Your task to perform on an android device: Open ESPN.com Image 0: 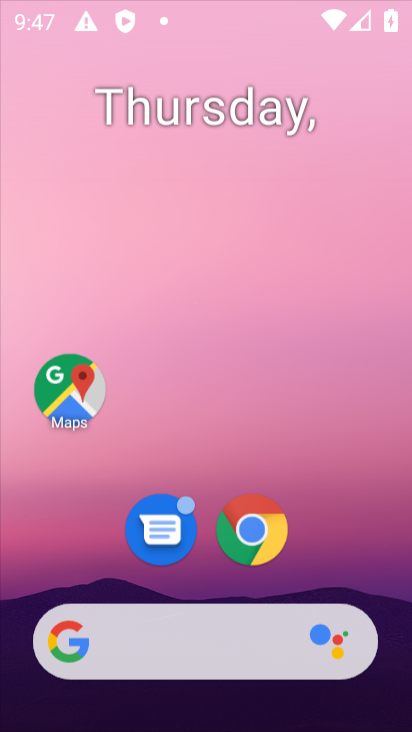
Step 0: press home button
Your task to perform on an android device: Open ESPN.com Image 1: 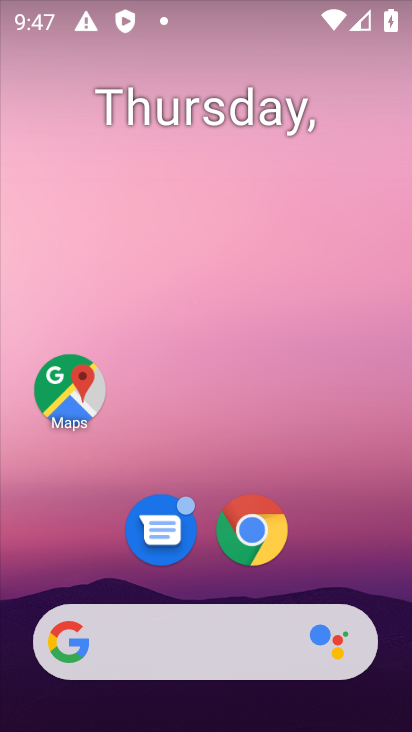
Step 1: click (69, 637)
Your task to perform on an android device: Open ESPN.com Image 2: 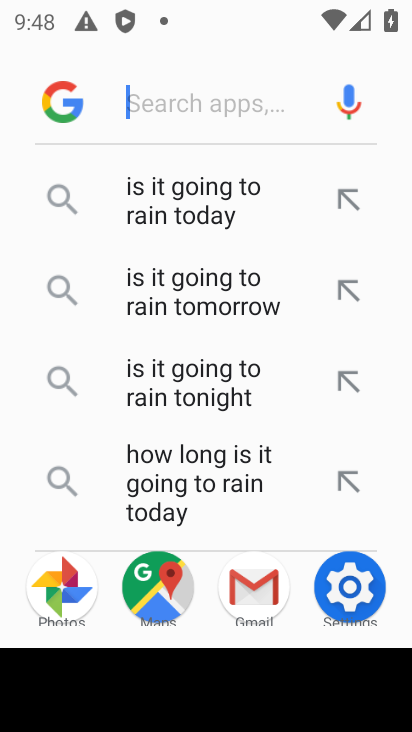
Step 2: type " ESPN.com"
Your task to perform on an android device: Open ESPN.com Image 3: 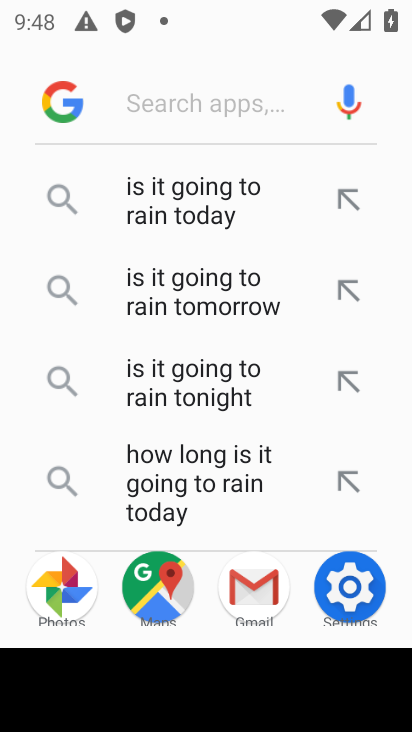
Step 3: click (169, 96)
Your task to perform on an android device: Open ESPN.com Image 4: 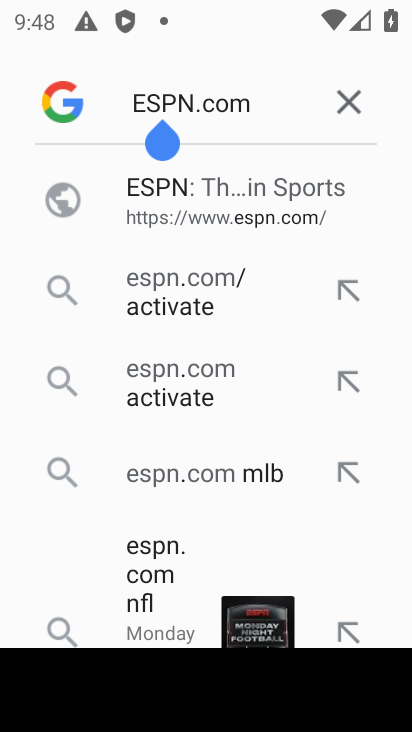
Step 4: press enter
Your task to perform on an android device: Open ESPN.com Image 5: 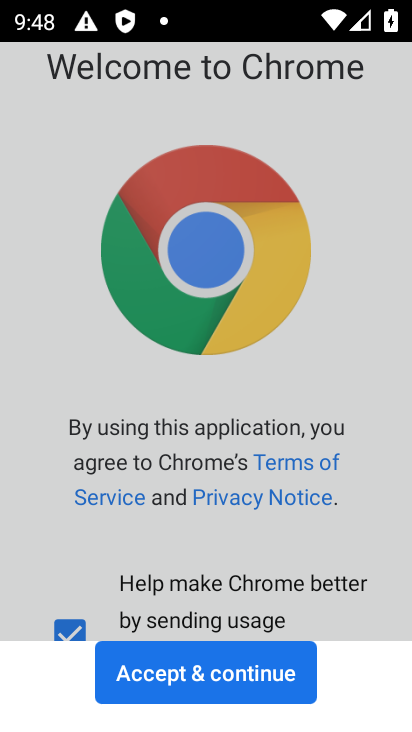
Step 5: click (243, 678)
Your task to perform on an android device: Open ESPN.com Image 6: 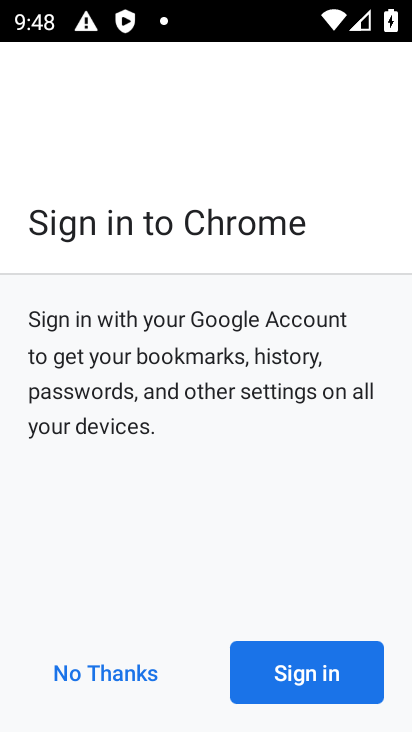
Step 6: click (134, 671)
Your task to perform on an android device: Open ESPN.com Image 7: 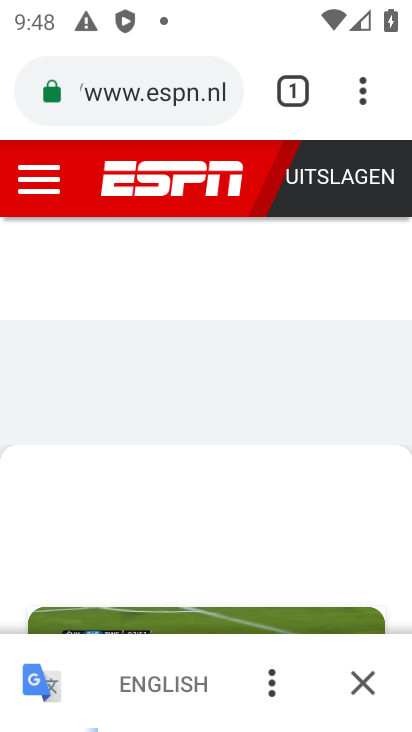
Step 7: click (363, 687)
Your task to perform on an android device: Open ESPN.com Image 8: 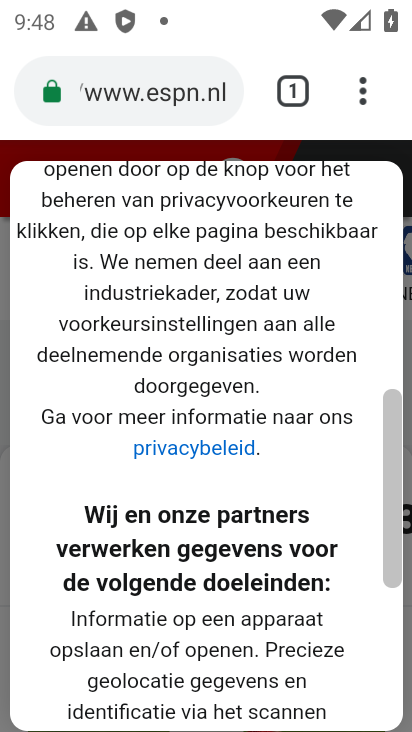
Step 8: task complete